Your task to perform on an android device: see sites visited before in the chrome app Image 0: 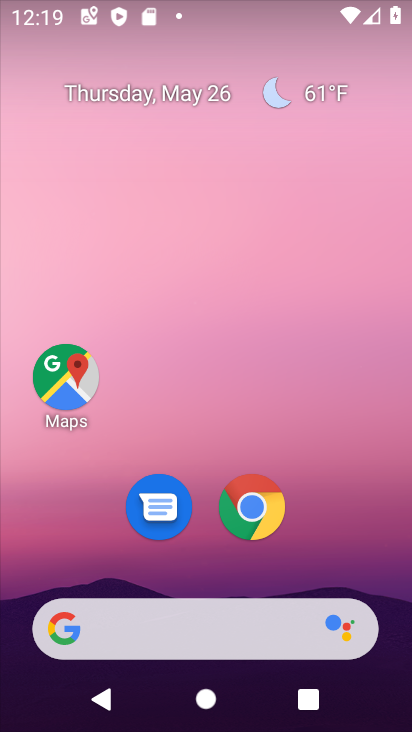
Step 0: click (273, 510)
Your task to perform on an android device: see sites visited before in the chrome app Image 1: 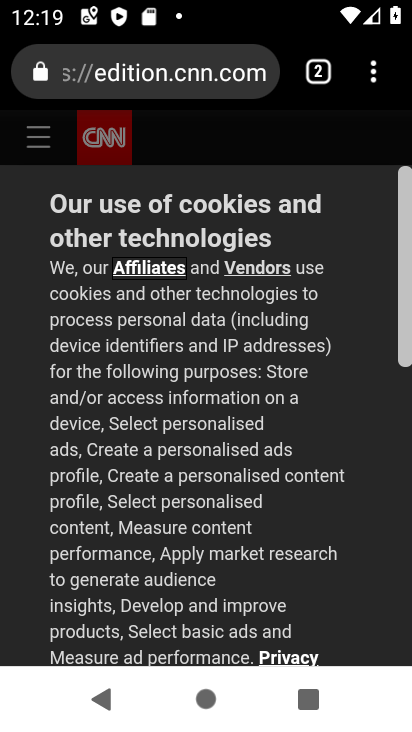
Step 1: click (379, 68)
Your task to perform on an android device: see sites visited before in the chrome app Image 2: 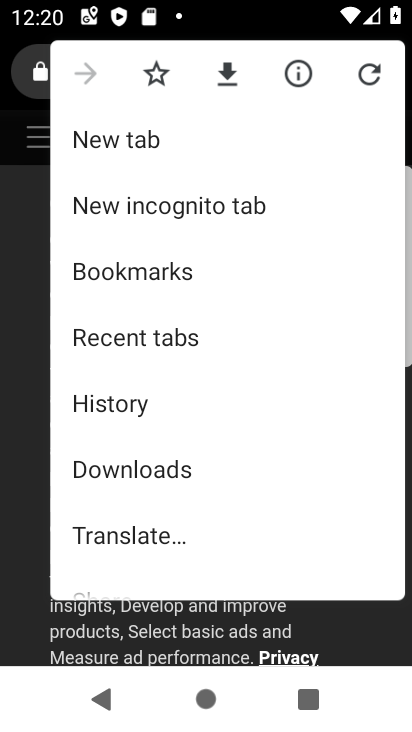
Step 2: click (198, 336)
Your task to perform on an android device: see sites visited before in the chrome app Image 3: 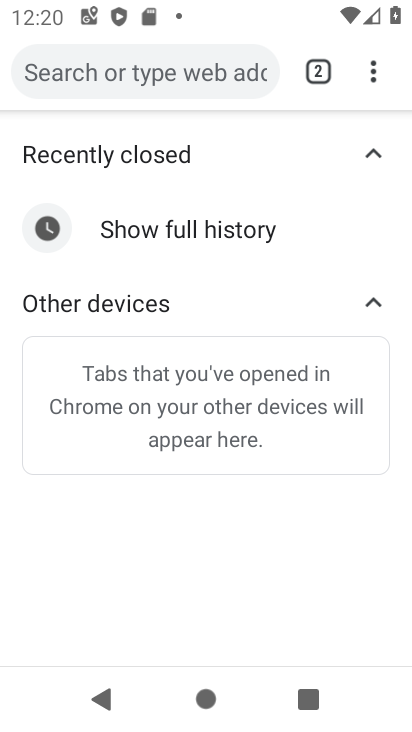
Step 3: task complete